Your task to perform on an android device: Open Youtube and go to "Your channel" Image 0: 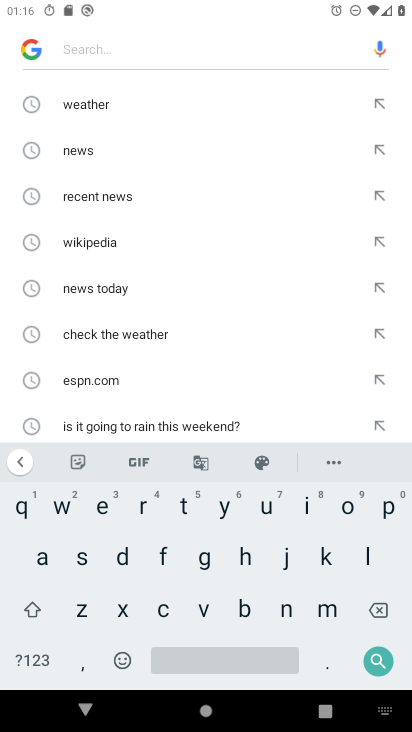
Step 0: press home button
Your task to perform on an android device: Open Youtube and go to "Your channel" Image 1: 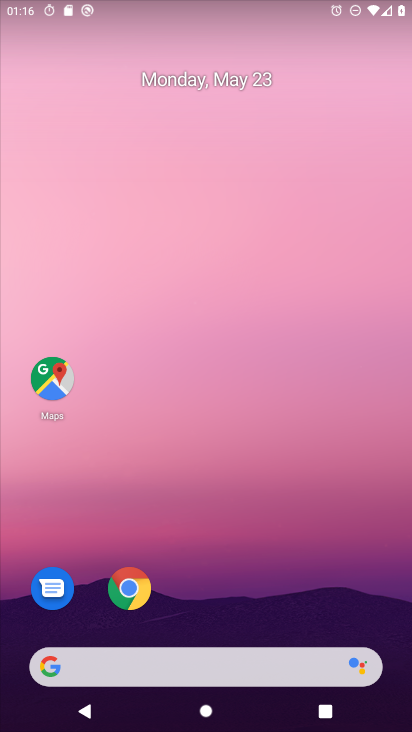
Step 1: drag from (261, 657) to (231, 99)
Your task to perform on an android device: Open Youtube and go to "Your channel" Image 2: 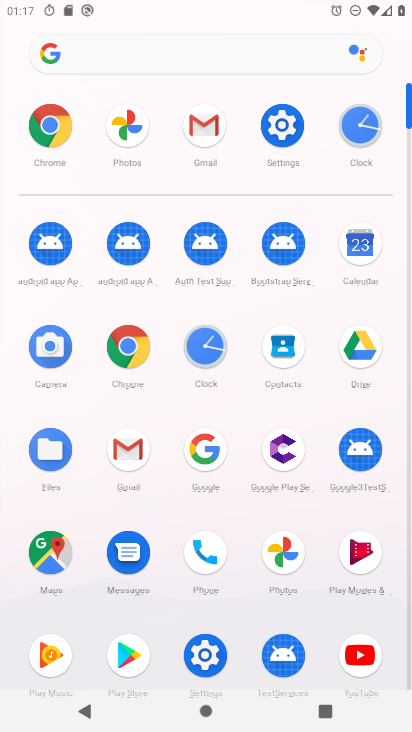
Step 2: click (355, 660)
Your task to perform on an android device: Open Youtube and go to "Your channel" Image 3: 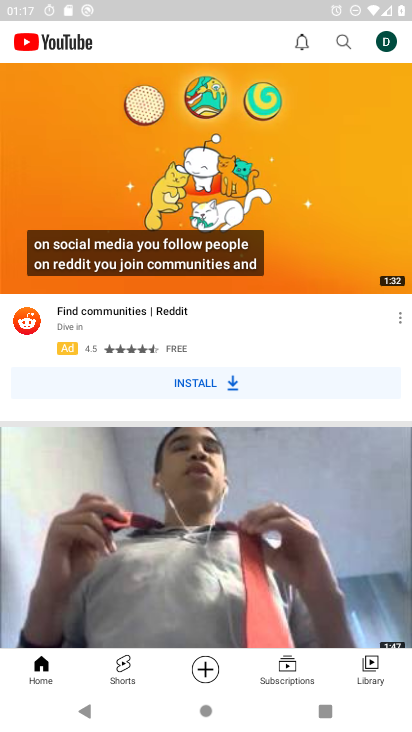
Step 3: click (376, 44)
Your task to perform on an android device: Open Youtube and go to "Your channel" Image 4: 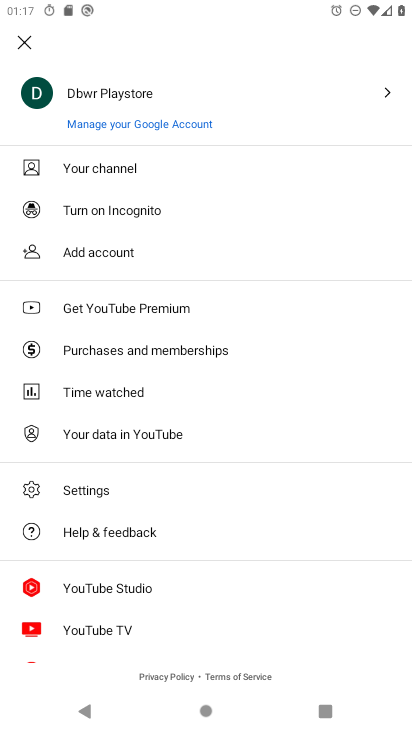
Step 4: click (118, 178)
Your task to perform on an android device: Open Youtube and go to "Your channel" Image 5: 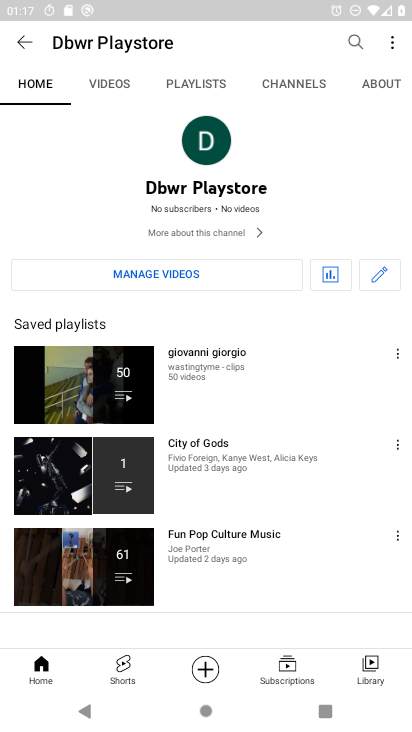
Step 5: task complete